Your task to perform on an android device: turn off location history Image 0: 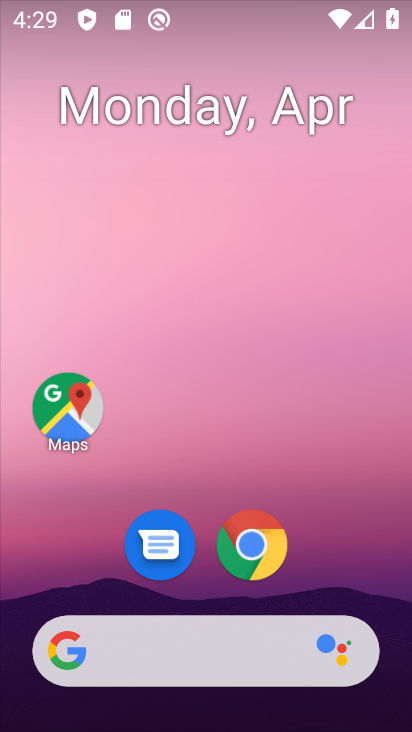
Step 0: click (65, 406)
Your task to perform on an android device: turn off location history Image 1: 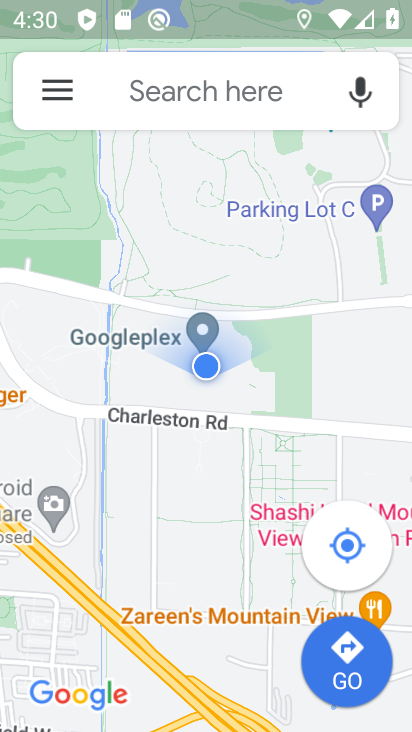
Step 1: click (57, 89)
Your task to perform on an android device: turn off location history Image 2: 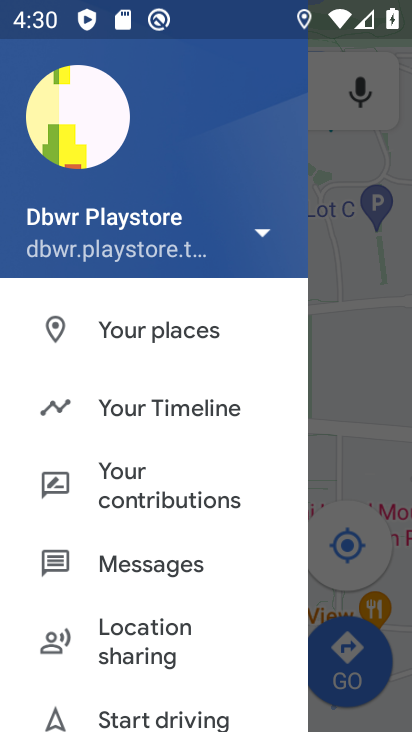
Step 2: click (175, 416)
Your task to perform on an android device: turn off location history Image 3: 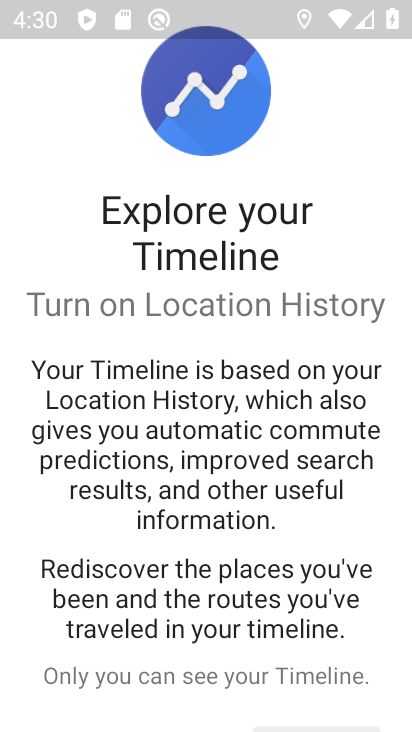
Step 3: drag from (262, 584) to (231, 57)
Your task to perform on an android device: turn off location history Image 4: 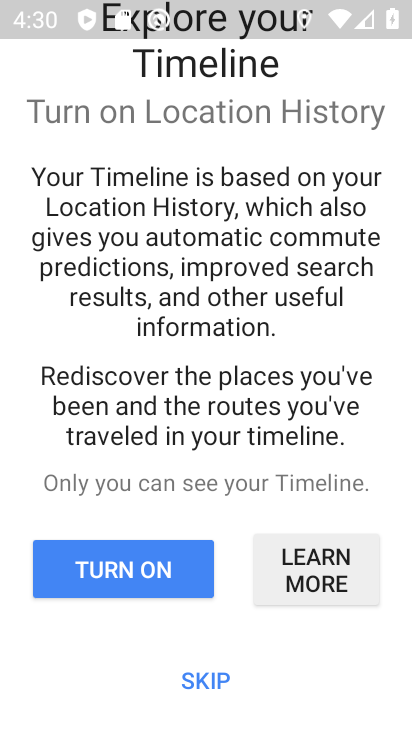
Step 4: click (213, 691)
Your task to perform on an android device: turn off location history Image 5: 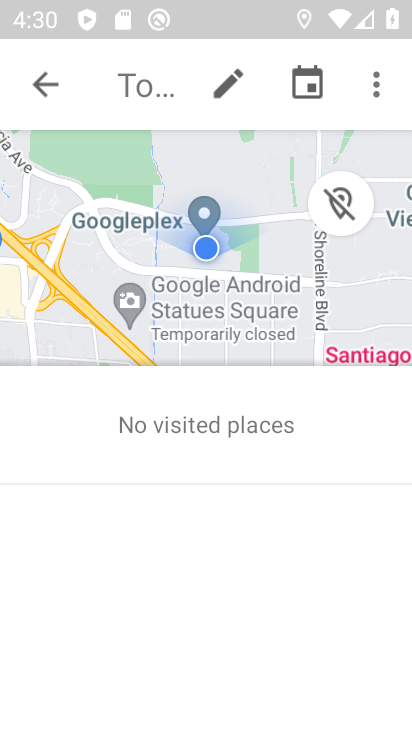
Step 5: click (378, 89)
Your task to perform on an android device: turn off location history Image 6: 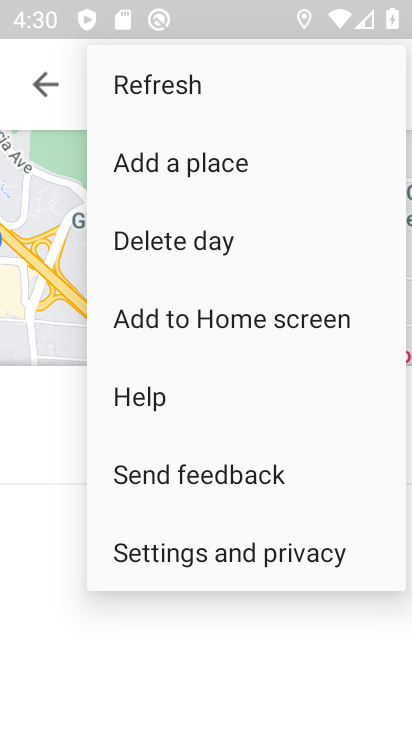
Step 6: click (186, 566)
Your task to perform on an android device: turn off location history Image 7: 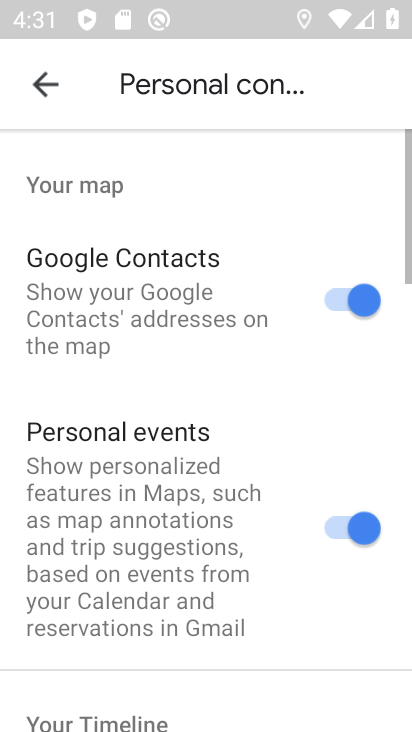
Step 7: drag from (186, 567) to (165, 132)
Your task to perform on an android device: turn off location history Image 8: 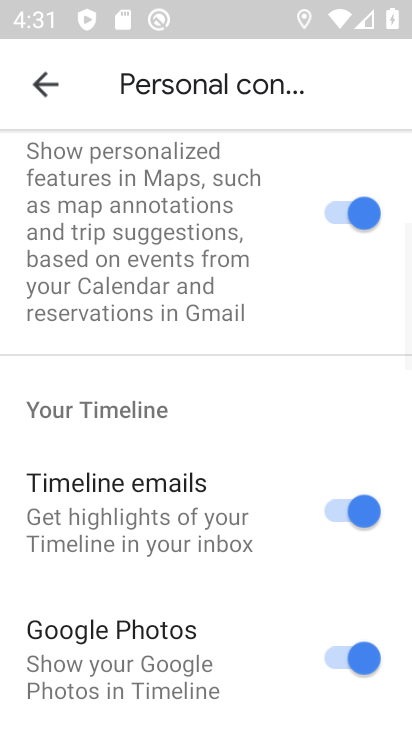
Step 8: drag from (190, 539) to (169, 178)
Your task to perform on an android device: turn off location history Image 9: 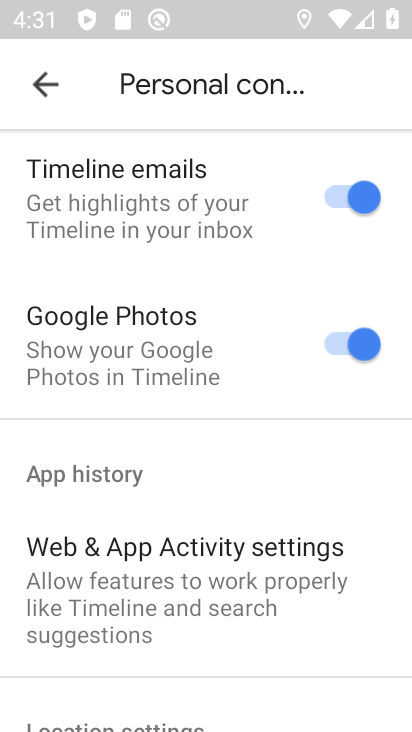
Step 9: drag from (159, 561) to (138, 156)
Your task to perform on an android device: turn off location history Image 10: 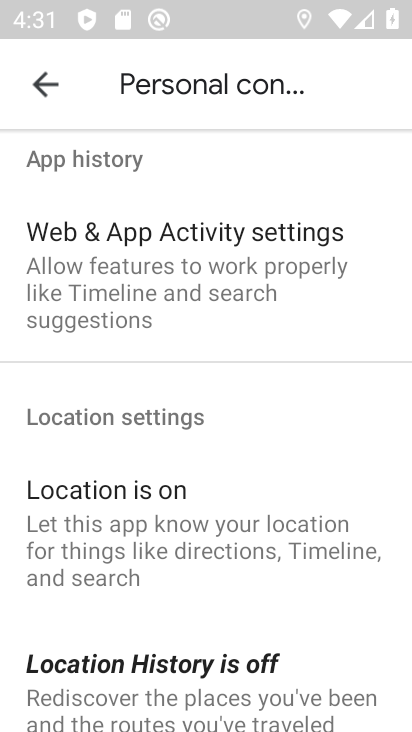
Step 10: drag from (184, 678) to (168, 306)
Your task to perform on an android device: turn off location history Image 11: 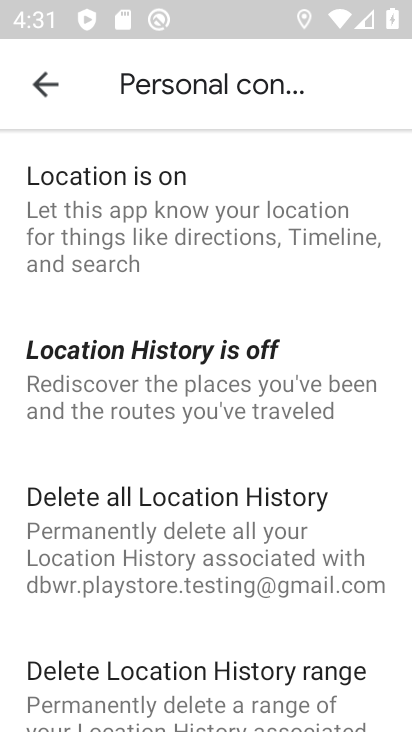
Step 11: click (155, 378)
Your task to perform on an android device: turn off location history Image 12: 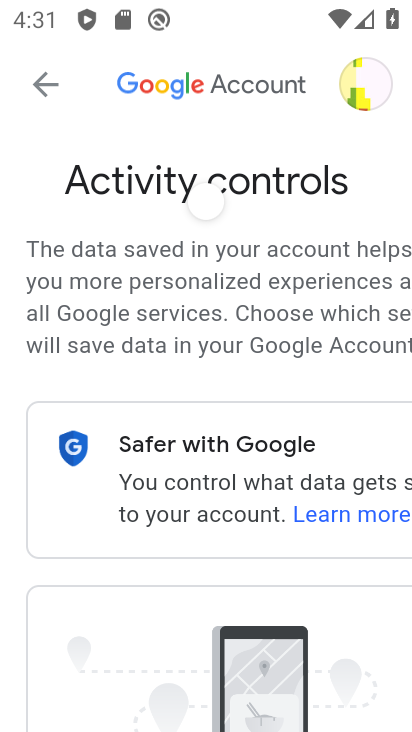
Step 12: task complete